Your task to perform on an android device: change keyboard looks Image 0: 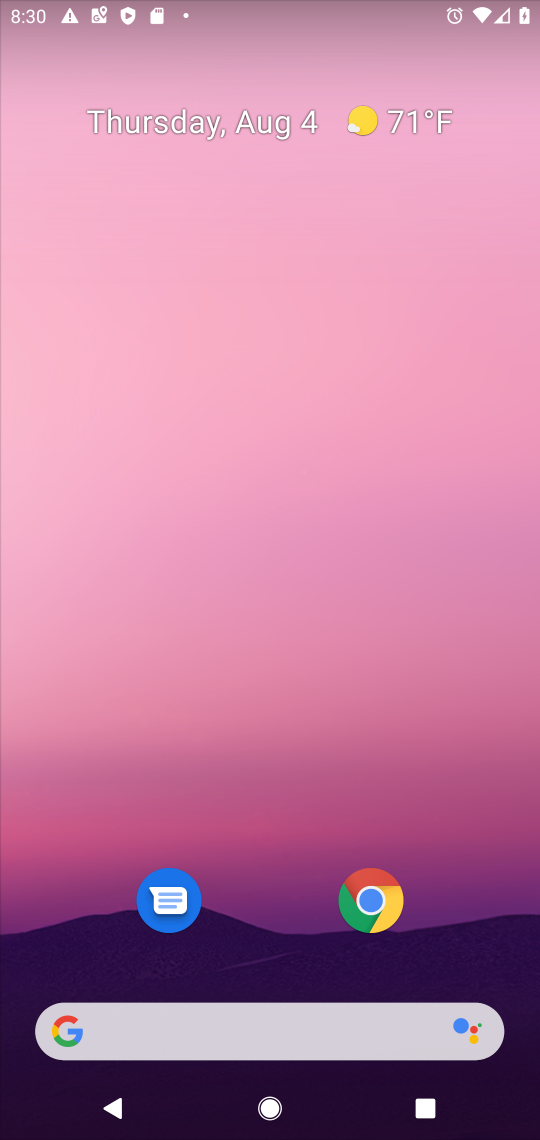
Step 0: drag from (223, 1033) to (246, 332)
Your task to perform on an android device: change keyboard looks Image 1: 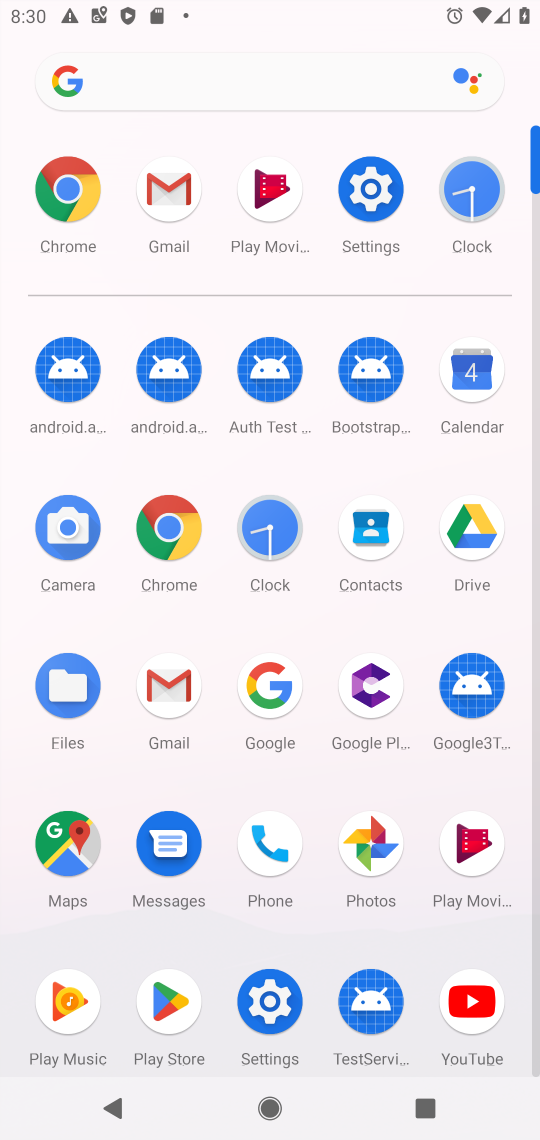
Step 1: click (373, 189)
Your task to perform on an android device: change keyboard looks Image 2: 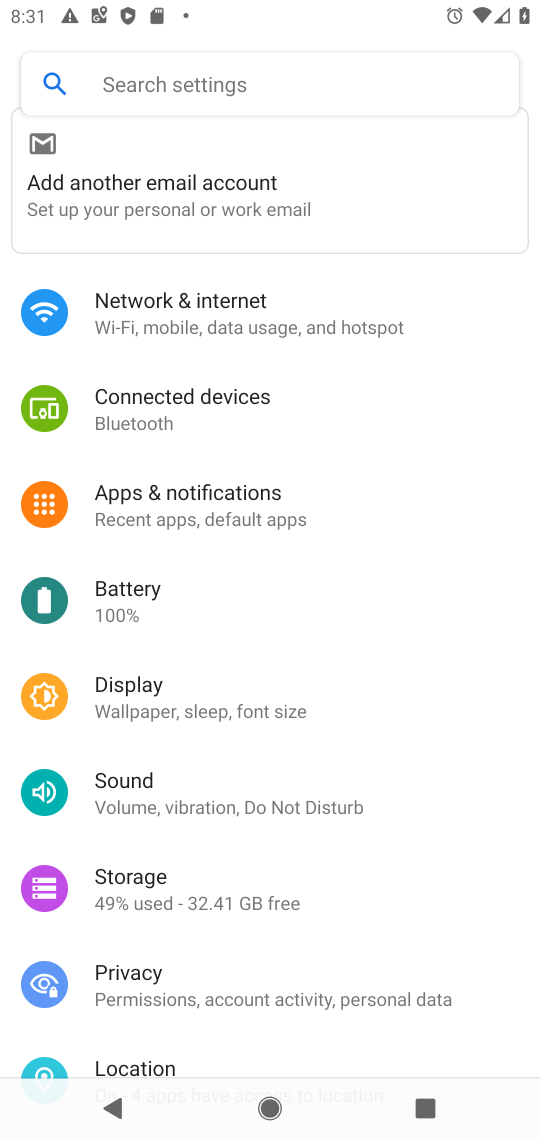
Step 2: drag from (206, 764) to (285, 560)
Your task to perform on an android device: change keyboard looks Image 3: 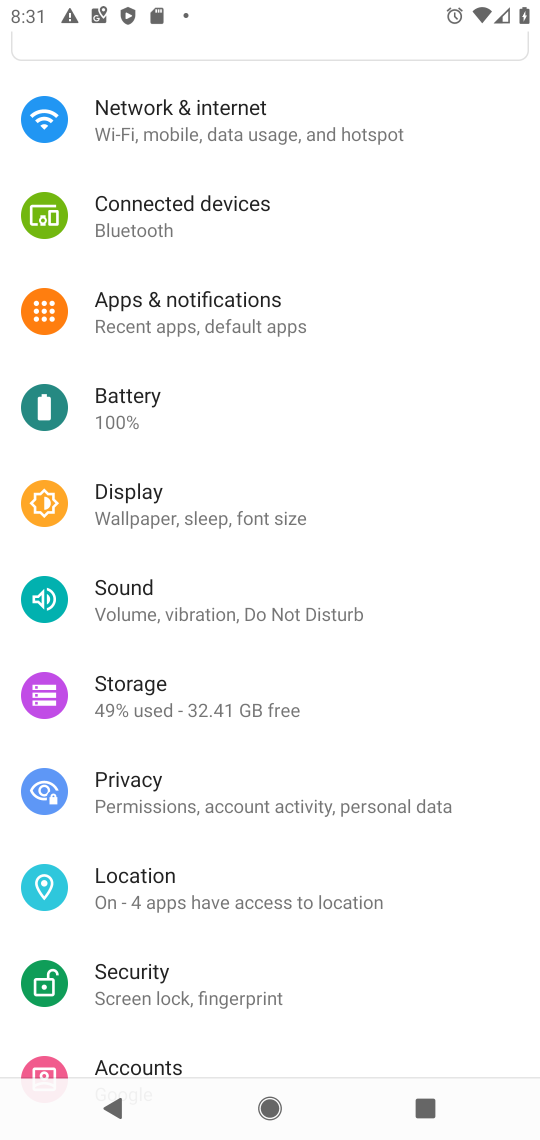
Step 3: drag from (189, 837) to (264, 586)
Your task to perform on an android device: change keyboard looks Image 4: 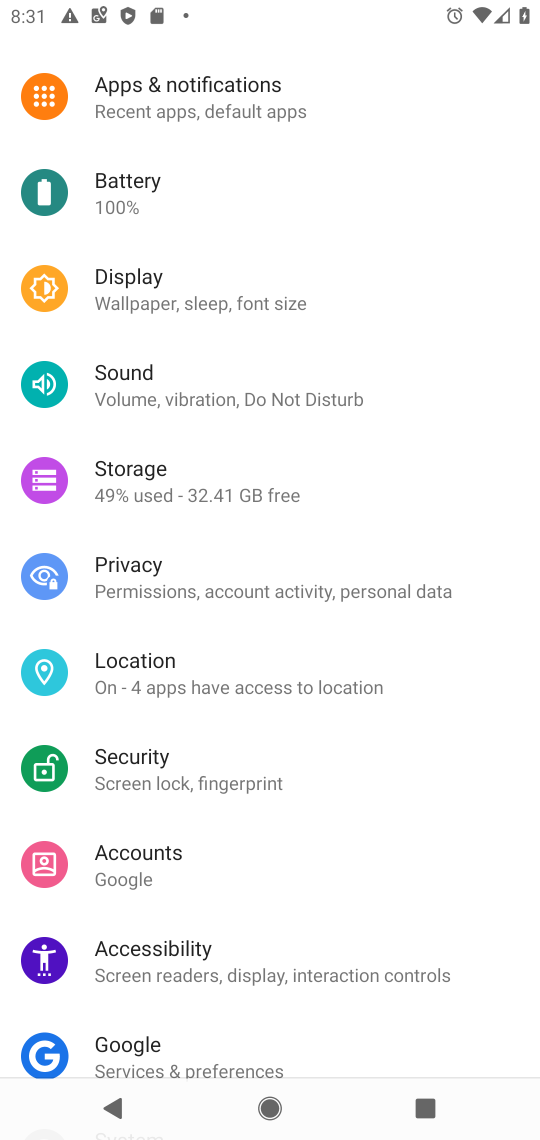
Step 4: drag from (199, 841) to (248, 622)
Your task to perform on an android device: change keyboard looks Image 5: 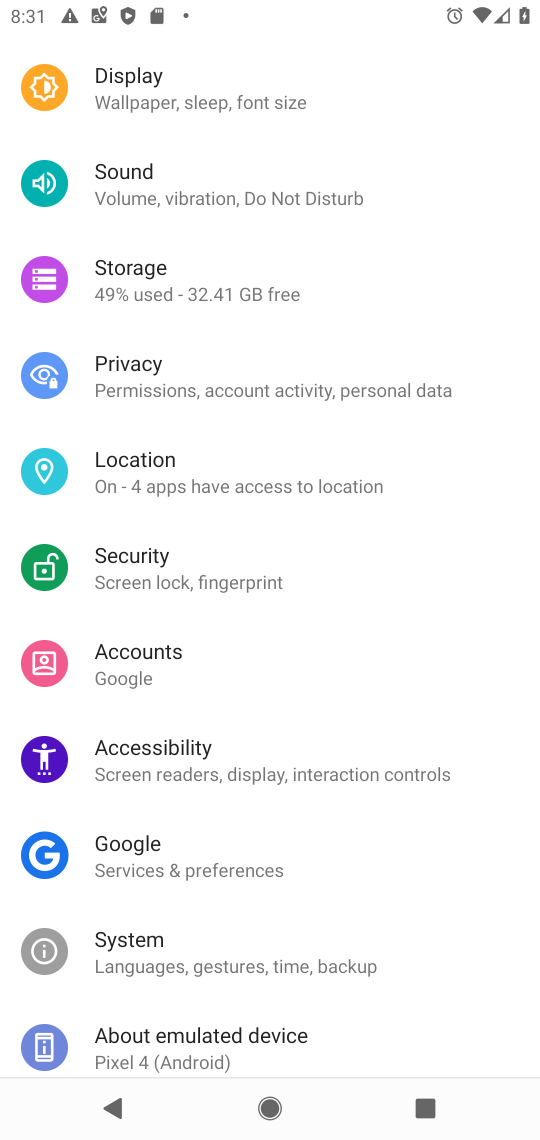
Step 5: drag from (204, 848) to (267, 650)
Your task to perform on an android device: change keyboard looks Image 6: 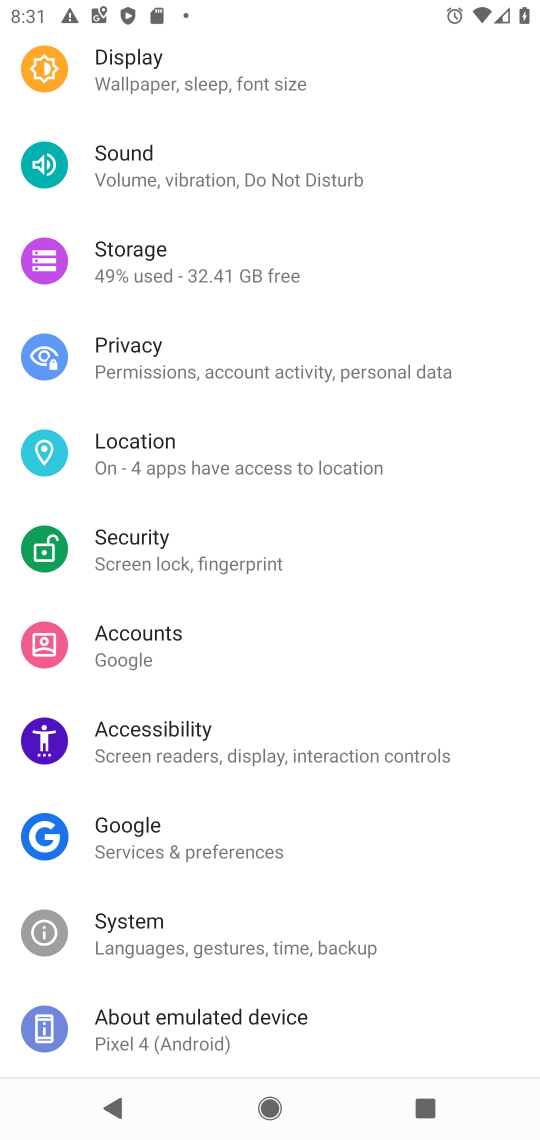
Step 6: click (163, 946)
Your task to perform on an android device: change keyboard looks Image 7: 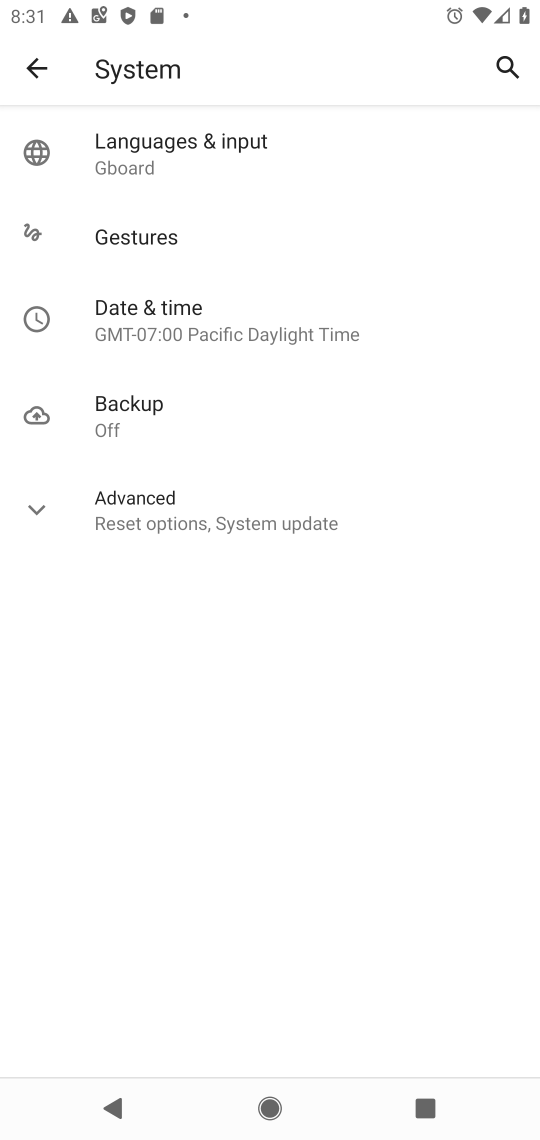
Step 7: click (162, 144)
Your task to perform on an android device: change keyboard looks Image 8: 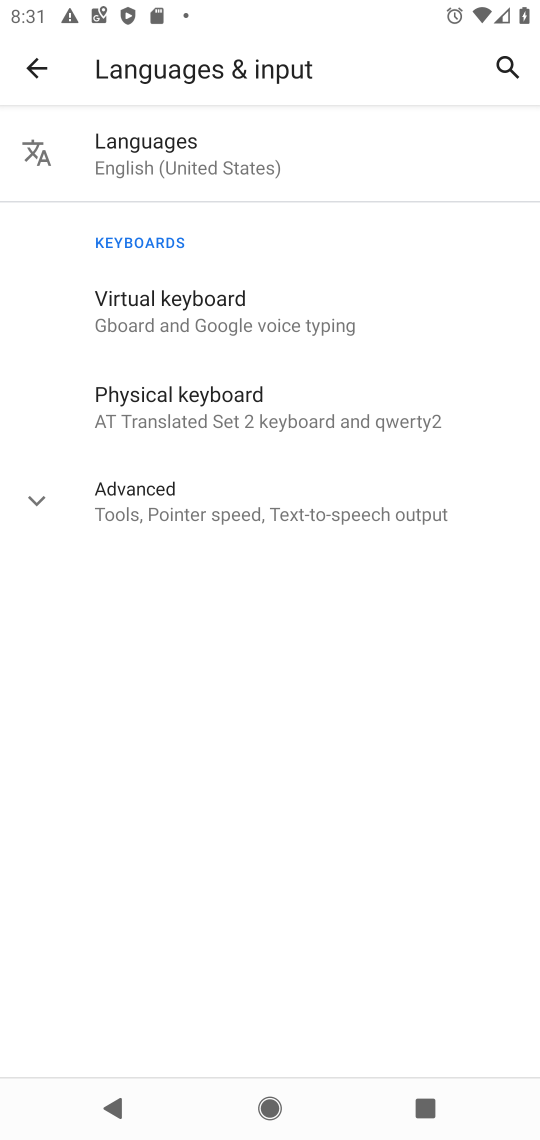
Step 8: click (196, 321)
Your task to perform on an android device: change keyboard looks Image 9: 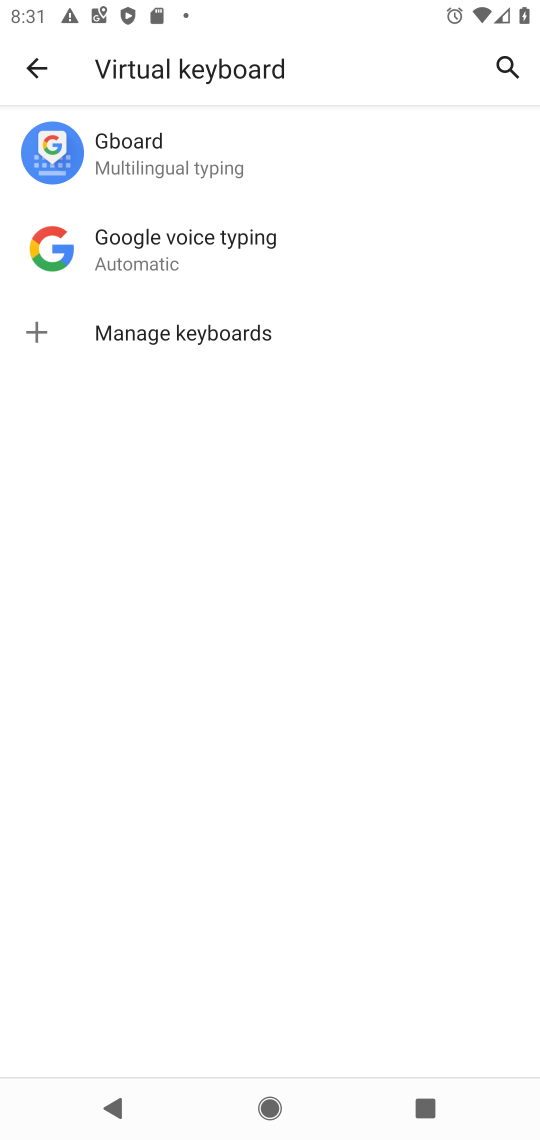
Step 9: click (177, 165)
Your task to perform on an android device: change keyboard looks Image 10: 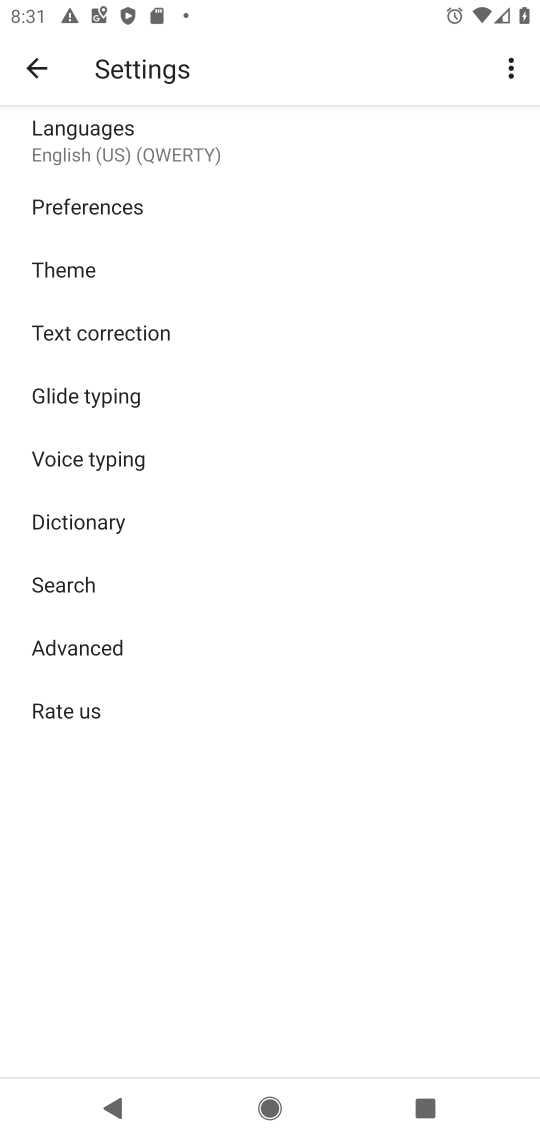
Step 10: click (67, 271)
Your task to perform on an android device: change keyboard looks Image 11: 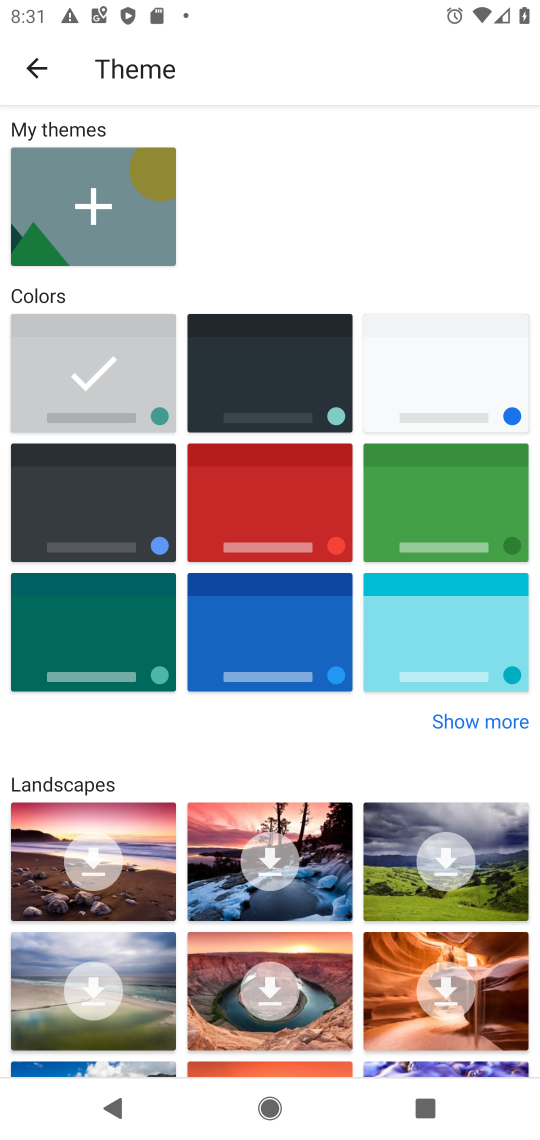
Step 11: click (234, 506)
Your task to perform on an android device: change keyboard looks Image 12: 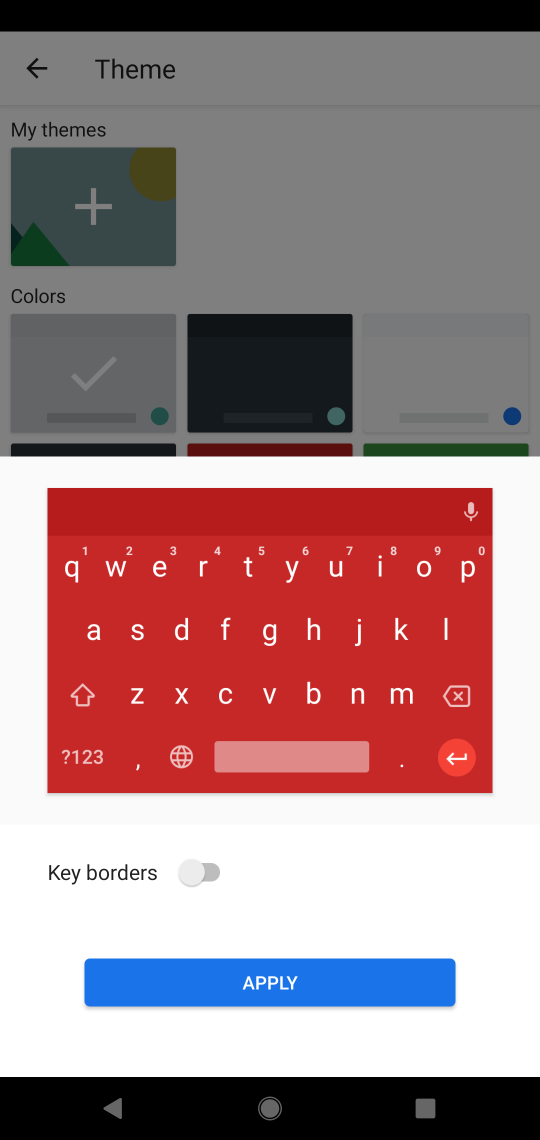
Step 12: click (202, 864)
Your task to perform on an android device: change keyboard looks Image 13: 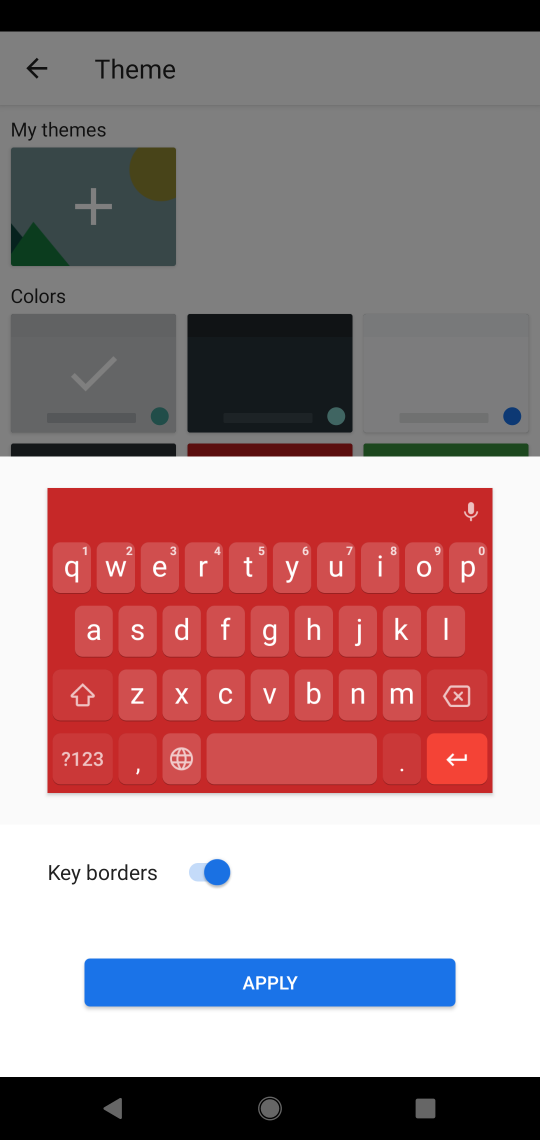
Step 13: click (266, 992)
Your task to perform on an android device: change keyboard looks Image 14: 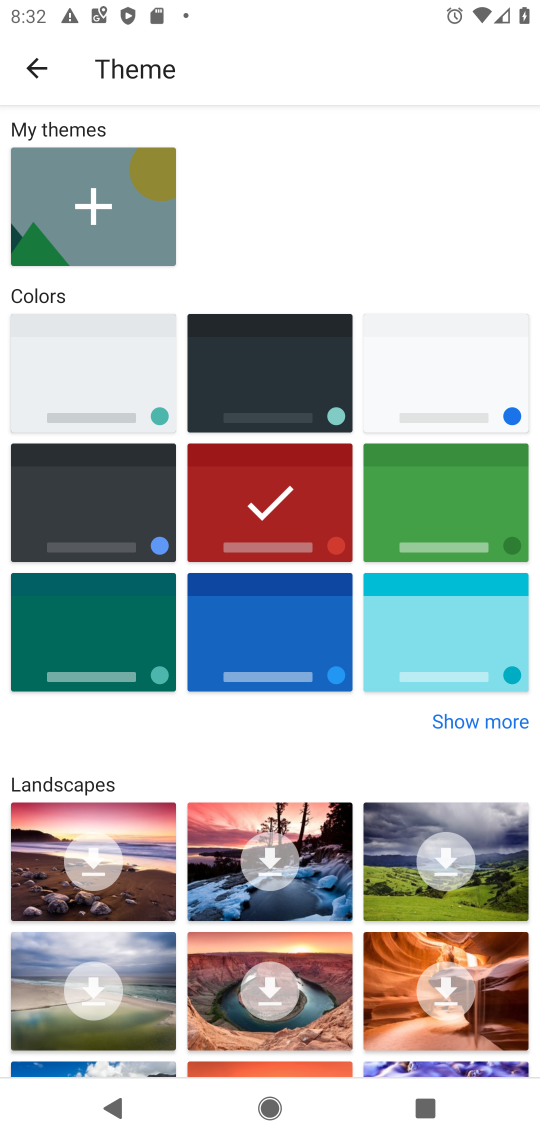
Step 14: task complete